Your task to perform on an android device: Open calendar and show me the first week of next month Image 0: 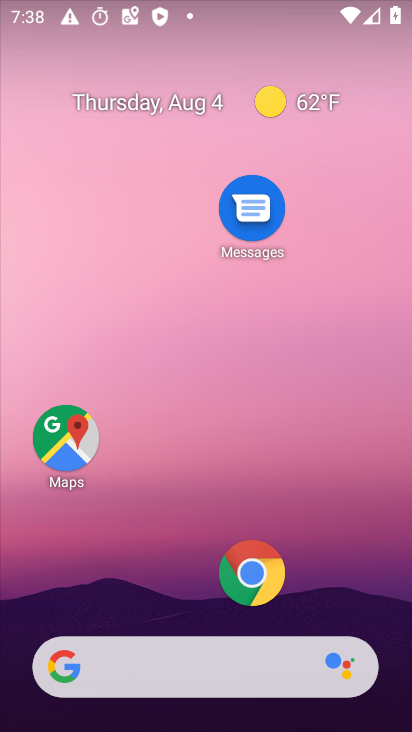
Step 0: press home button
Your task to perform on an android device: Open calendar and show me the first week of next month Image 1: 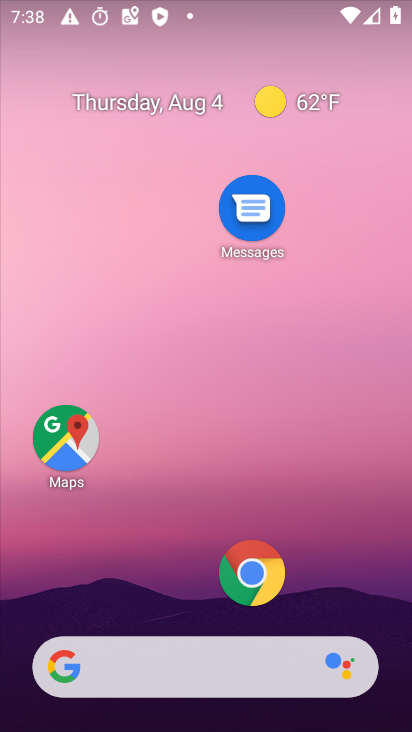
Step 1: drag from (201, 513) to (262, 143)
Your task to perform on an android device: Open calendar and show me the first week of next month Image 2: 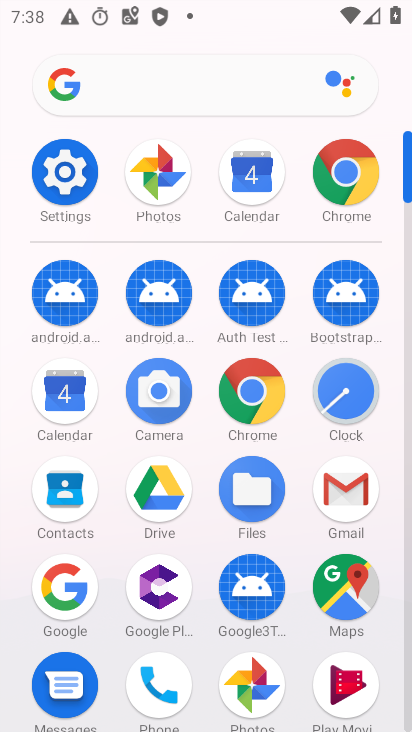
Step 2: click (58, 397)
Your task to perform on an android device: Open calendar and show me the first week of next month Image 3: 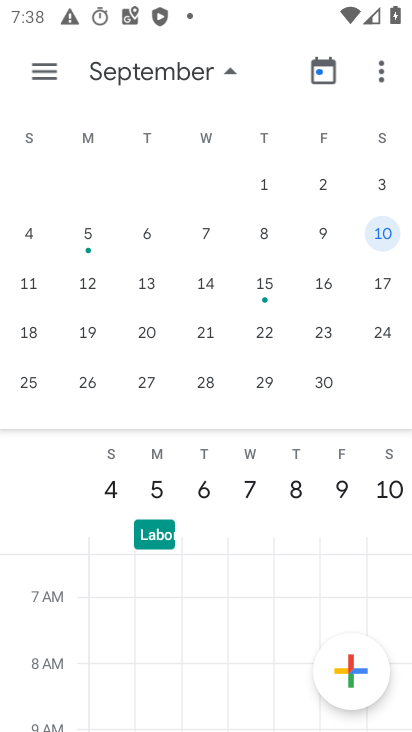
Step 3: click (267, 193)
Your task to perform on an android device: Open calendar and show me the first week of next month Image 4: 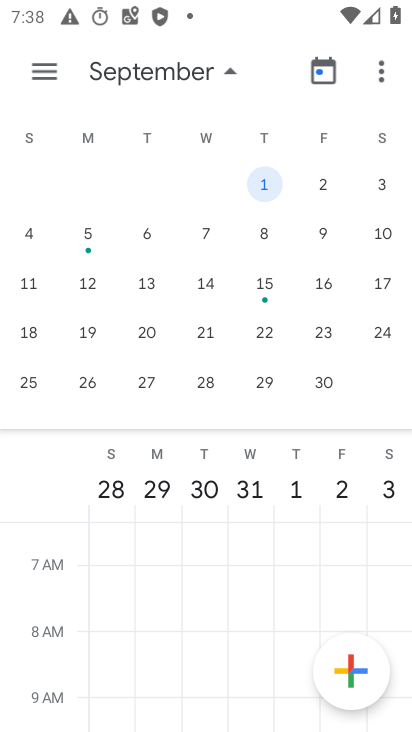
Step 4: click (324, 193)
Your task to perform on an android device: Open calendar and show me the first week of next month Image 5: 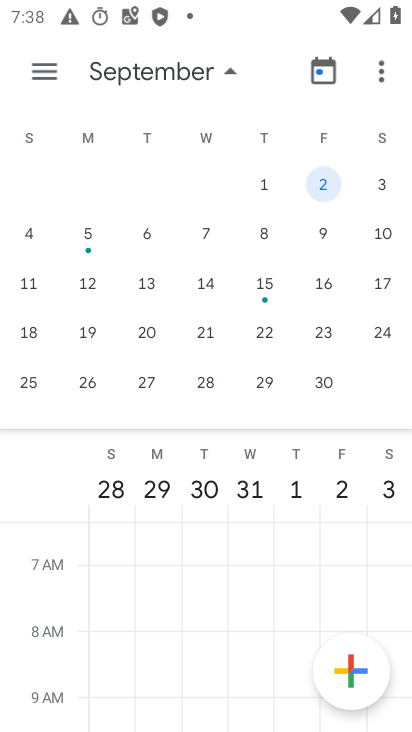
Step 5: click (380, 187)
Your task to perform on an android device: Open calendar and show me the first week of next month Image 6: 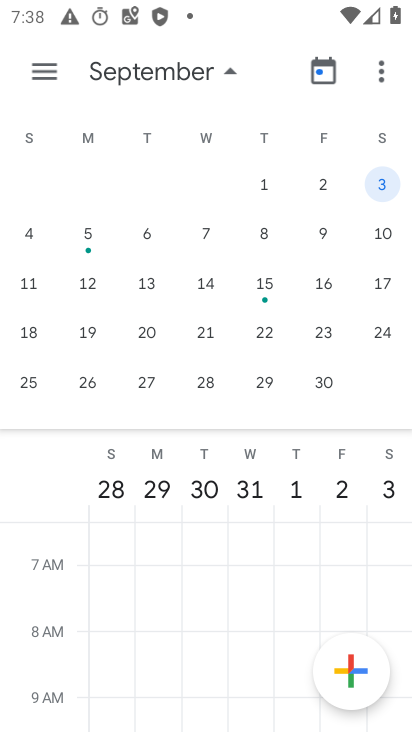
Step 6: task complete